Your task to perform on an android device: toggle translation in the chrome app Image 0: 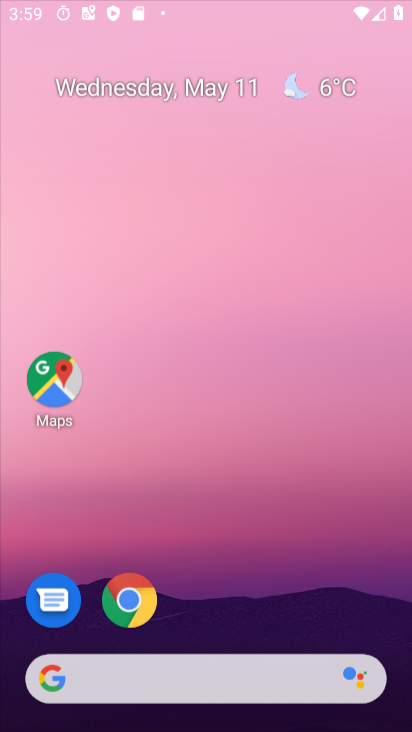
Step 0: drag from (135, 0) to (408, 225)
Your task to perform on an android device: toggle translation in the chrome app Image 1: 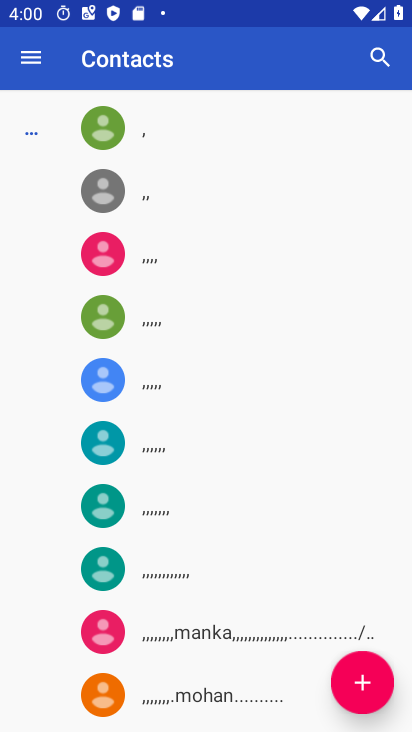
Step 1: press home button
Your task to perform on an android device: toggle translation in the chrome app Image 2: 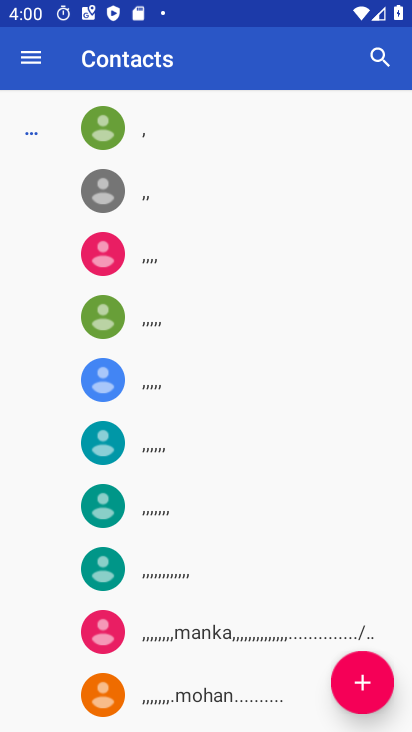
Step 2: press home button
Your task to perform on an android device: toggle translation in the chrome app Image 3: 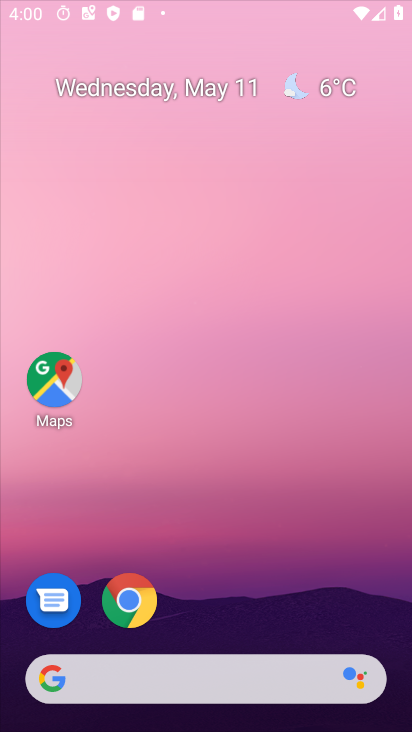
Step 3: press home button
Your task to perform on an android device: toggle translation in the chrome app Image 4: 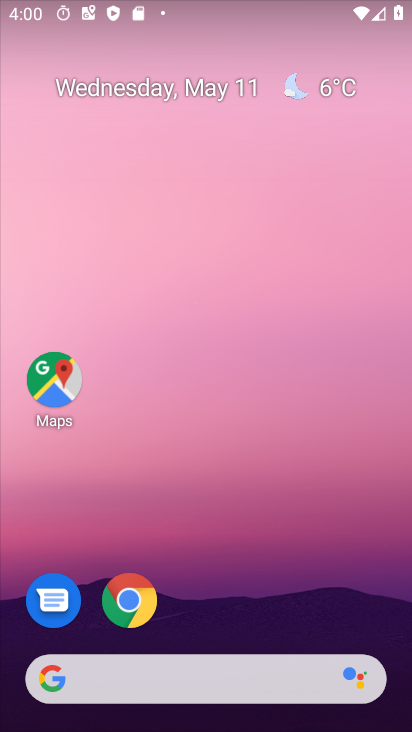
Step 4: drag from (334, 532) to (216, 36)
Your task to perform on an android device: toggle translation in the chrome app Image 5: 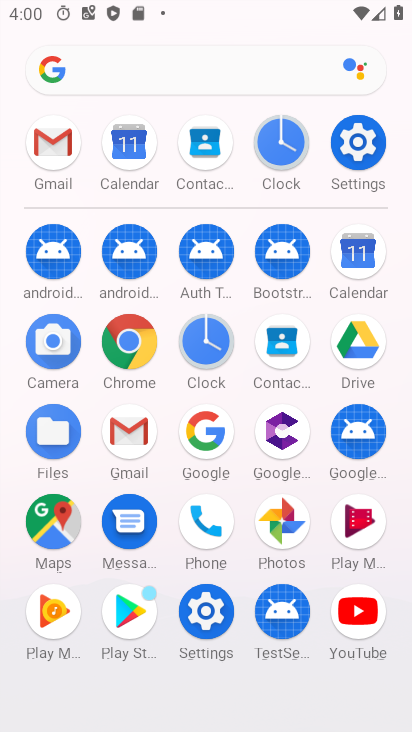
Step 5: click (134, 335)
Your task to perform on an android device: toggle translation in the chrome app Image 6: 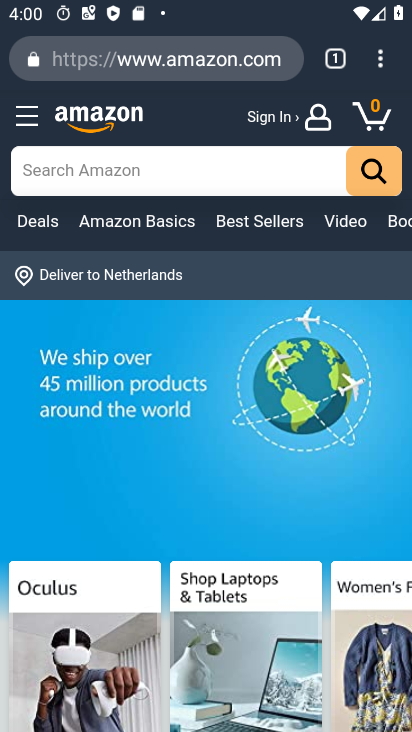
Step 6: click (380, 59)
Your task to perform on an android device: toggle translation in the chrome app Image 7: 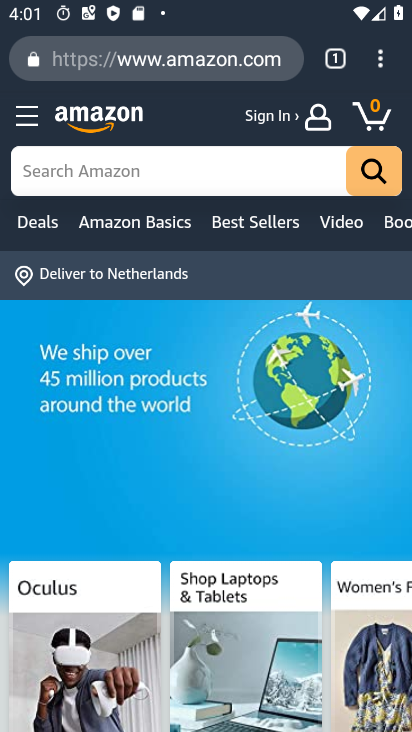
Step 7: click (381, 57)
Your task to perform on an android device: toggle translation in the chrome app Image 8: 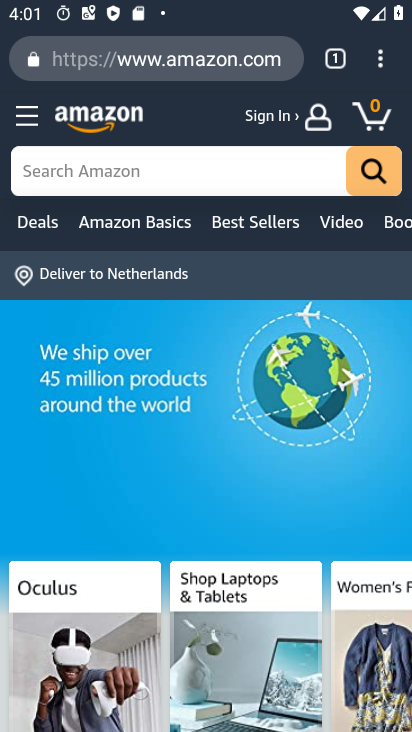
Step 8: drag from (379, 61) to (168, 625)
Your task to perform on an android device: toggle translation in the chrome app Image 9: 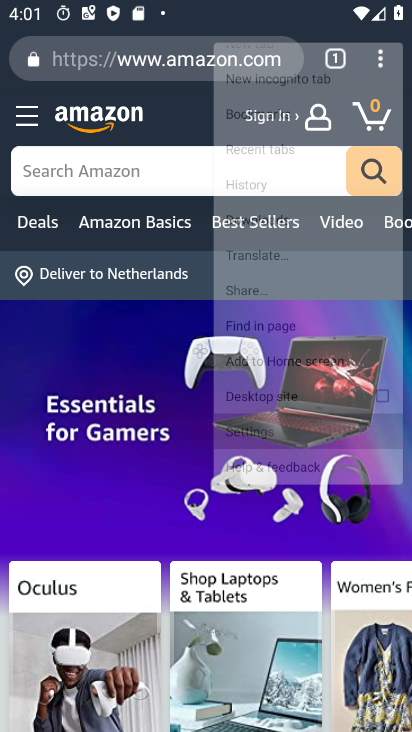
Step 9: click (167, 622)
Your task to perform on an android device: toggle translation in the chrome app Image 10: 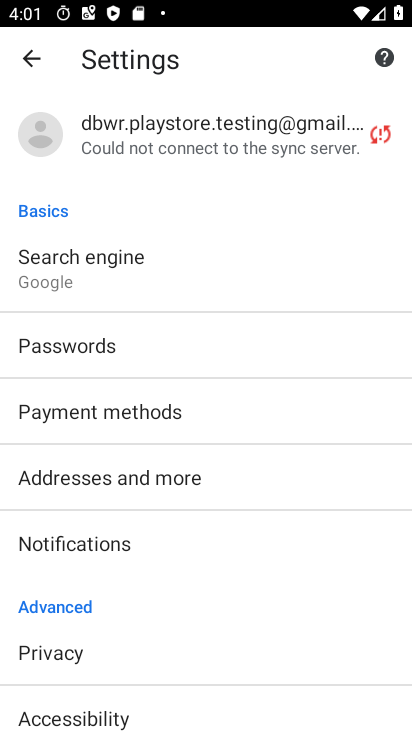
Step 10: drag from (159, 475) to (124, 268)
Your task to perform on an android device: toggle translation in the chrome app Image 11: 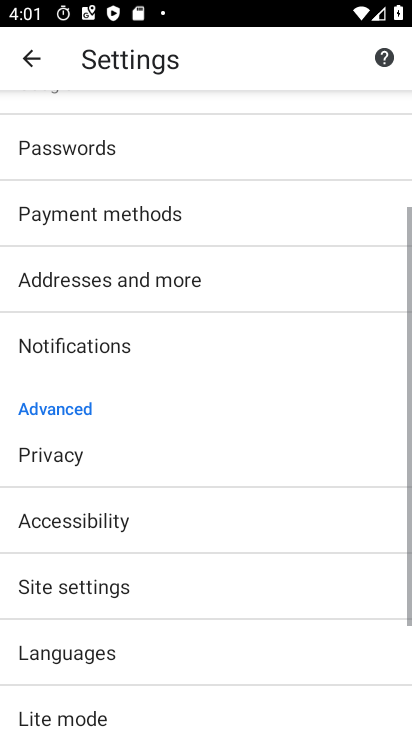
Step 11: drag from (203, 410) to (112, 155)
Your task to perform on an android device: toggle translation in the chrome app Image 12: 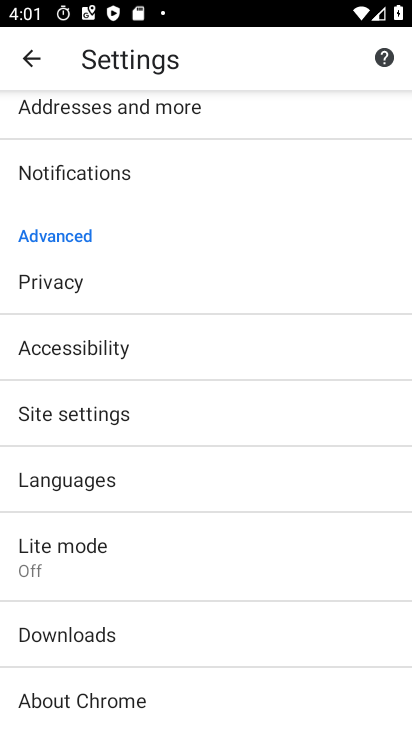
Step 12: click (59, 459)
Your task to perform on an android device: toggle translation in the chrome app Image 13: 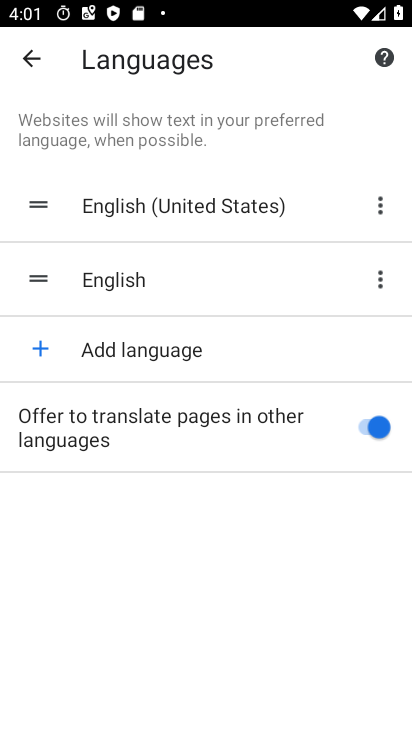
Step 13: click (378, 423)
Your task to perform on an android device: toggle translation in the chrome app Image 14: 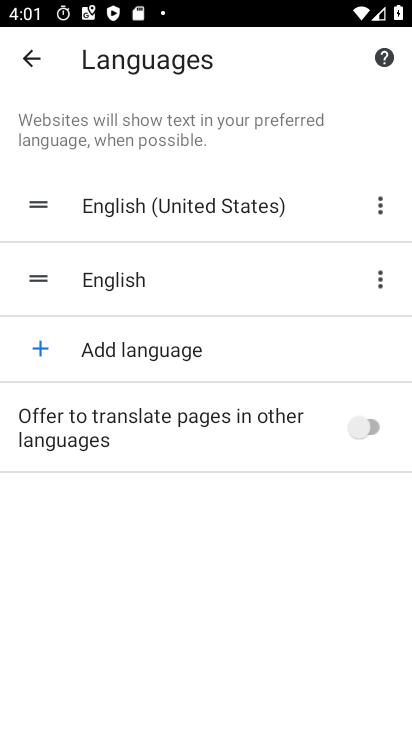
Step 14: click (386, 428)
Your task to perform on an android device: toggle translation in the chrome app Image 15: 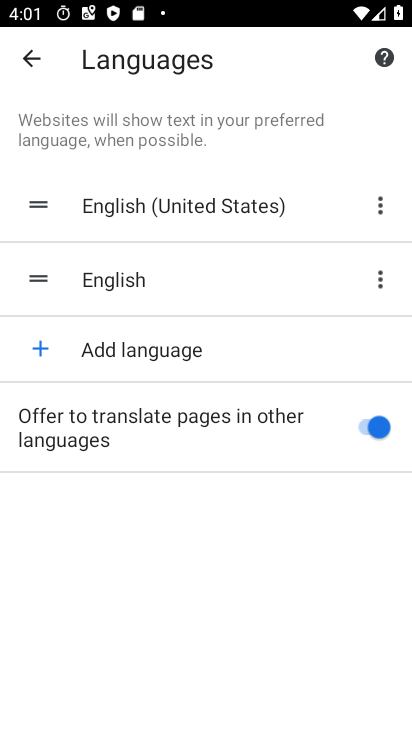
Step 15: task complete